Your task to perform on an android device: turn notification dots off Image 0: 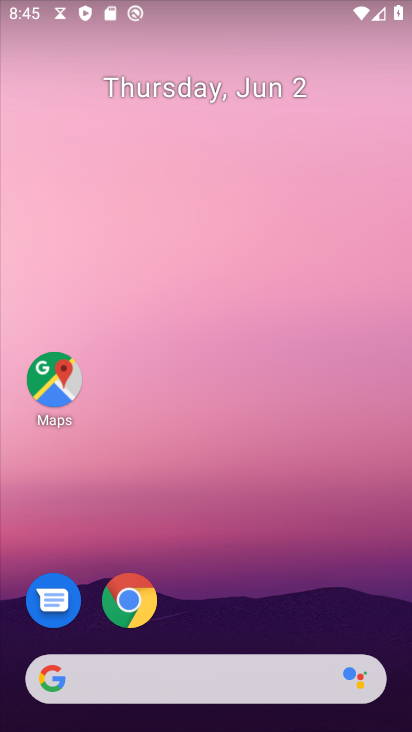
Step 0: drag from (206, 533) to (251, 43)
Your task to perform on an android device: turn notification dots off Image 1: 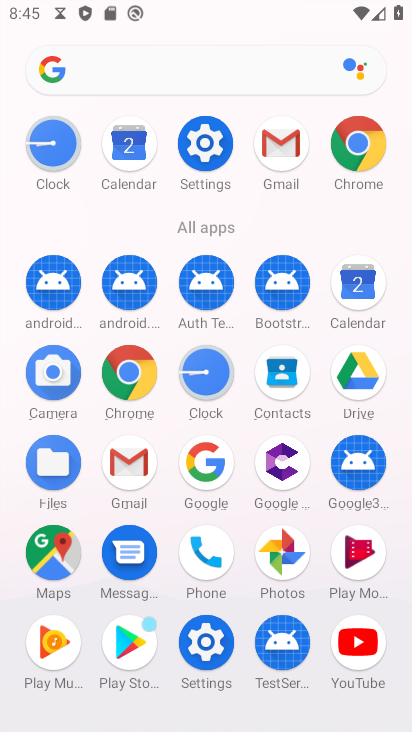
Step 1: click (216, 162)
Your task to perform on an android device: turn notification dots off Image 2: 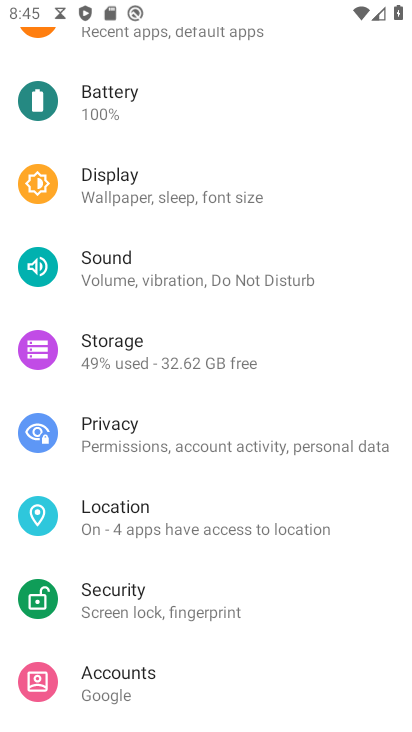
Step 2: drag from (192, 82) to (196, 405)
Your task to perform on an android device: turn notification dots off Image 3: 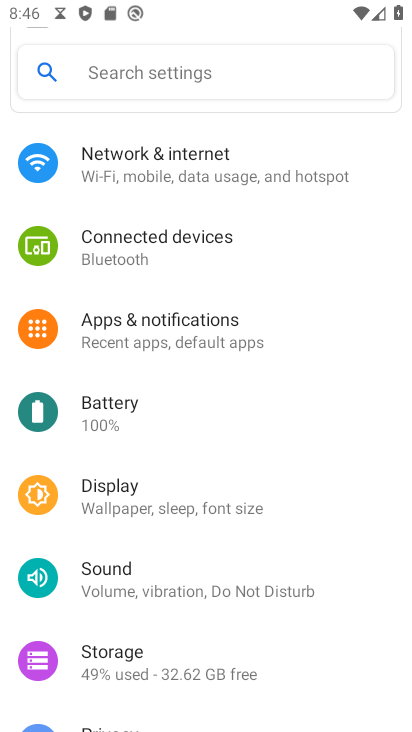
Step 3: click (287, 330)
Your task to perform on an android device: turn notification dots off Image 4: 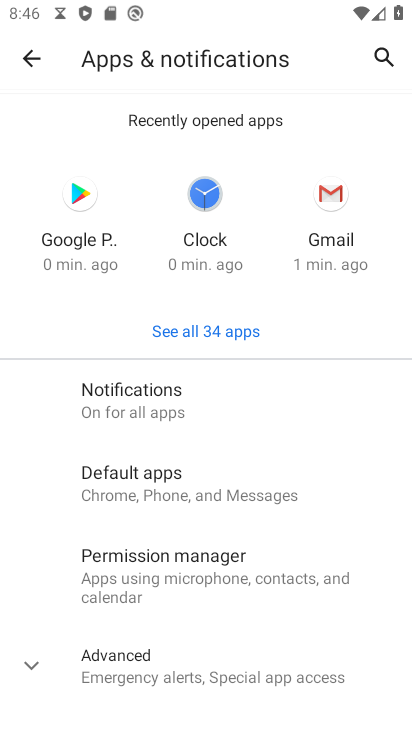
Step 4: click (148, 414)
Your task to perform on an android device: turn notification dots off Image 5: 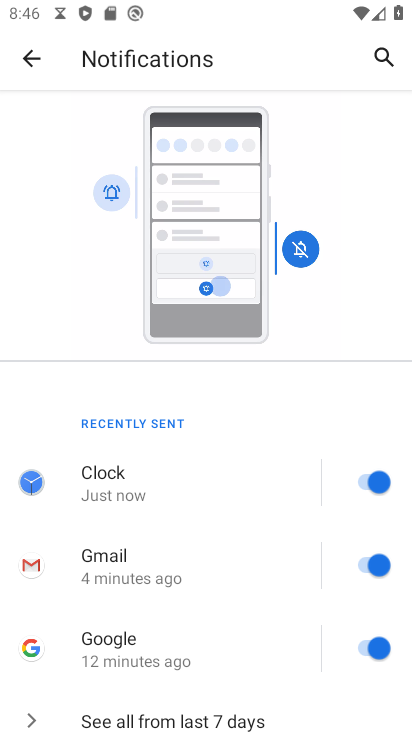
Step 5: drag from (209, 682) to (241, 213)
Your task to perform on an android device: turn notification dots off Image 6: 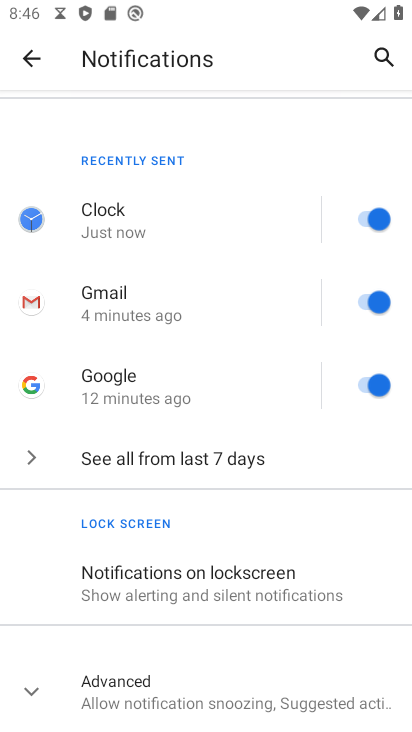
Step 6: click (149, 677)
Your task to perform on an android device: turn notification dots off Image 7: 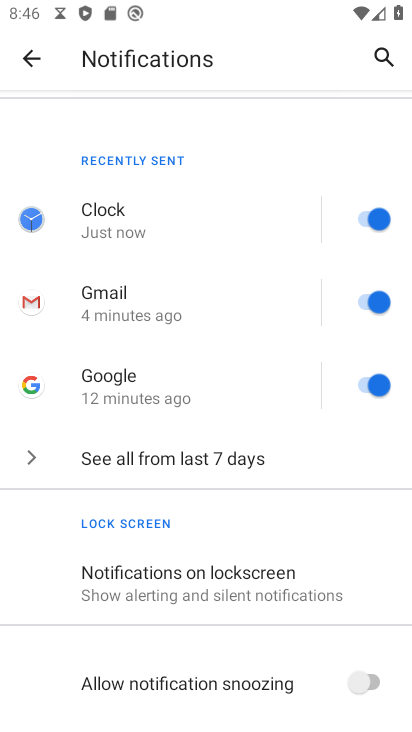
Step 7: drag from (210, 685) to (230, 353)
Your task to perform on an android device: turn notification dots off Image 8: 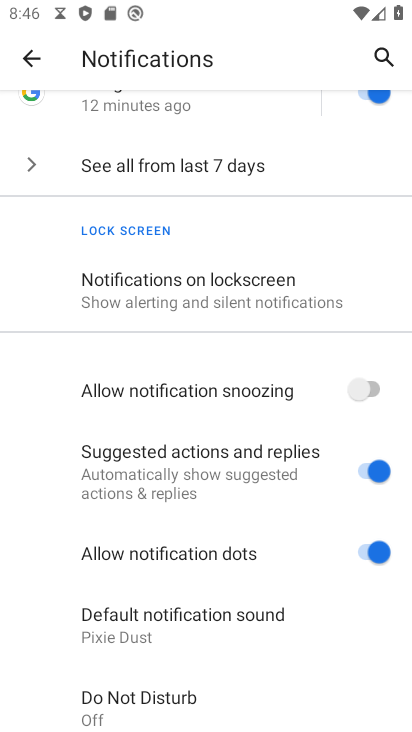
Step 8: click (363, 555)
Your task to perform on an android device: turn notification dots off Image 9: 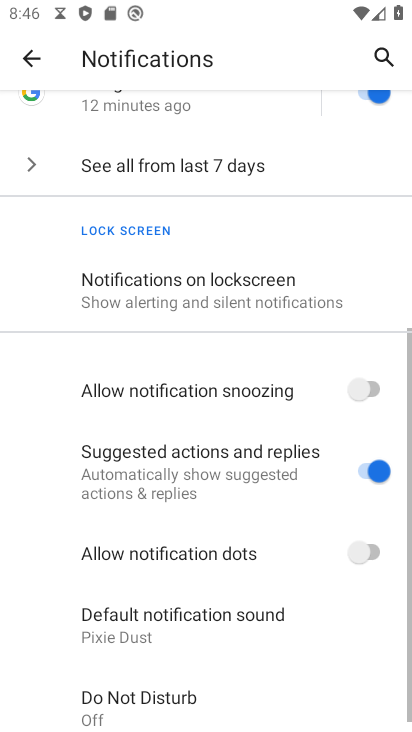
Step 9: task complete